Your task to perform on an android device: Open accessibility settings Image 0: 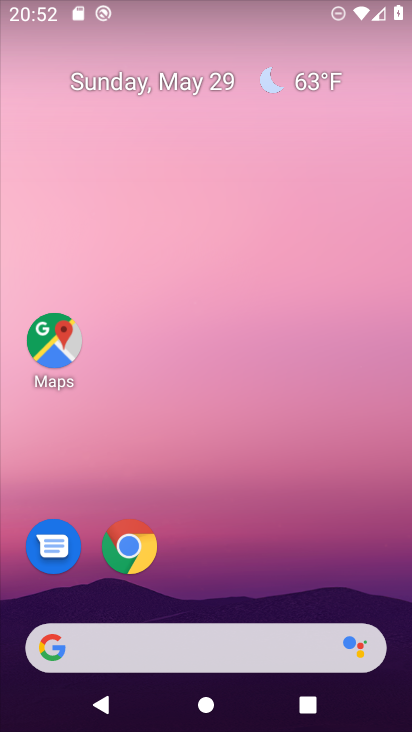
Step 0: press home button
Your task to perform on an android device: Open accessibility settings Image 1: 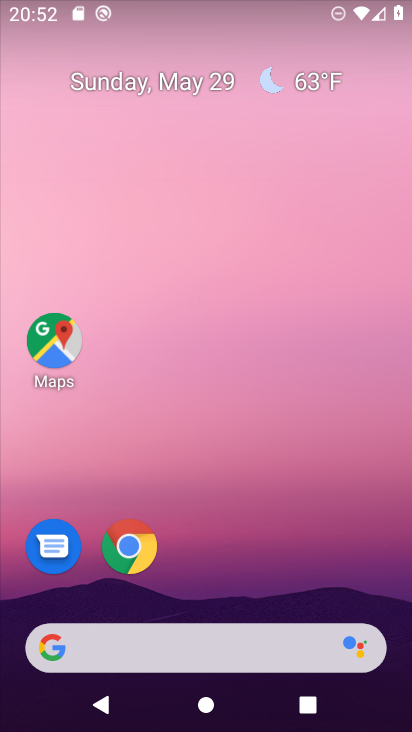
Step 1: drag from (160, 652) to (273, 74)
Your task to perform on an android device: Open accessibility settings Image 2: 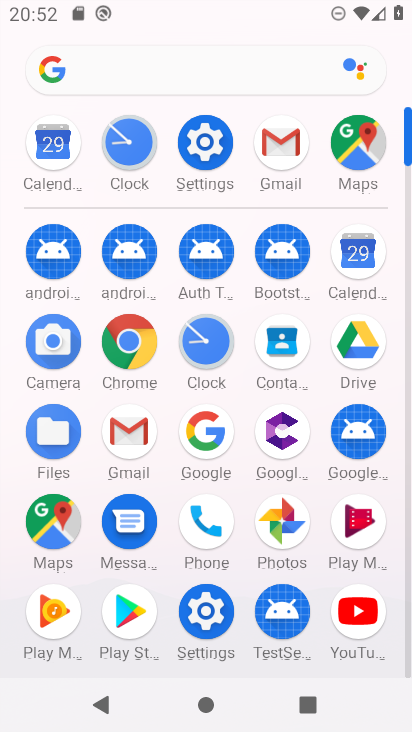
Step 2: click (204, 142)
Your task to perform on an android device: Open accessibility settings Image 3: 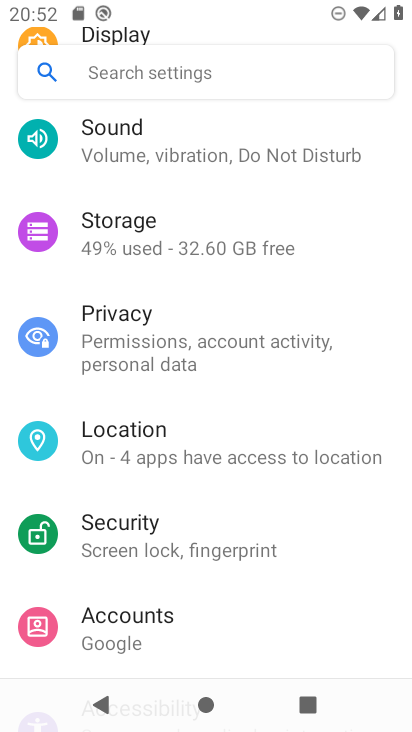
Step 3: drag from (264, 594) to (363, 142)
Your task to perform on an android device: Open accessibility settings Image 4: 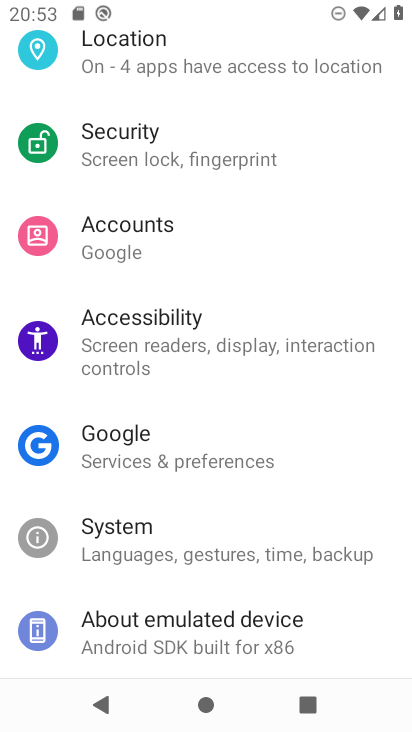
Step 4: click (184, 333)
Your task to perform on an android device: Open accessibility settings Image 5: 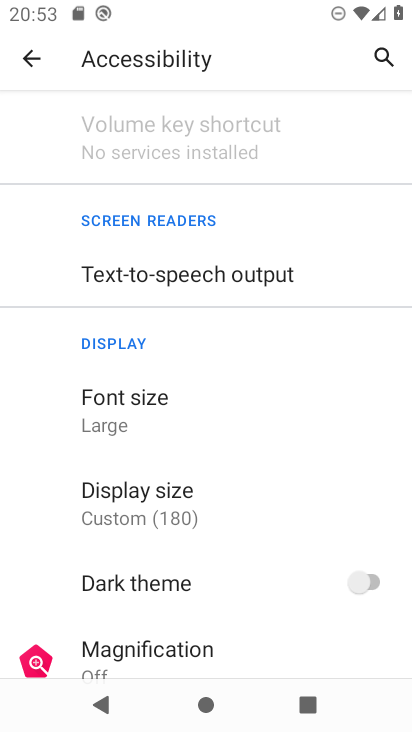
Step 5: task complete